Your task to perform on an android device: Show me popular videos on Youtube Image 0: 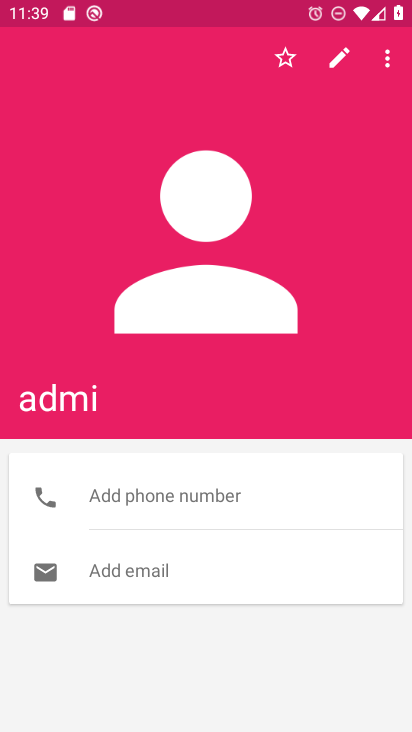
Step 0: press home button
Your task to perform on an android device: Show me popular videos on Youtube Image 1: 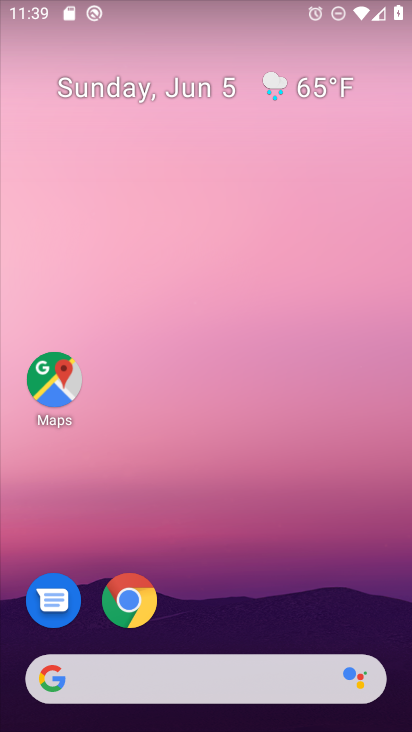
Step 1: drag from (345, 600) to (272, 46)
Your task to perform on an android device: Show me popular videos on Youtube Image 2: 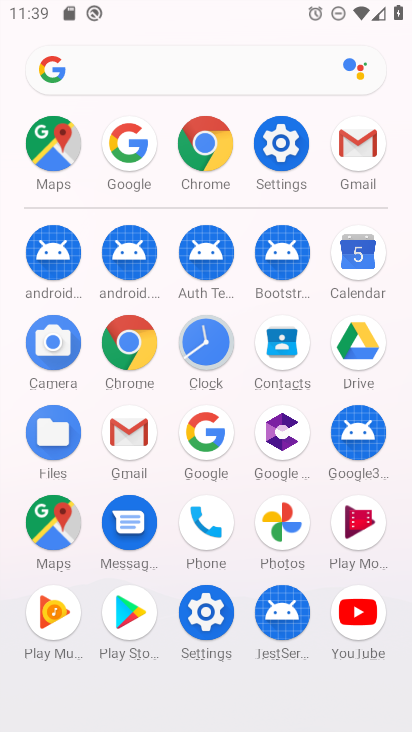
Step 2: click (359, 631)
Your task to perform on an android device: Show me popular videos on Youtube Image 3: 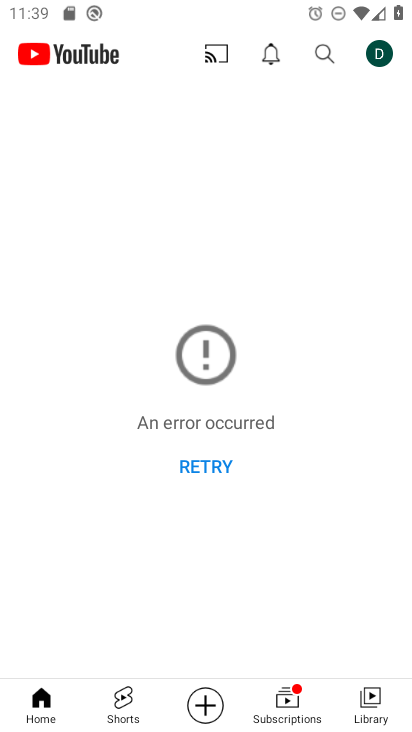
Step 3: task complete